Your task to perform on an android device: clear history in the chrome app Image 0: 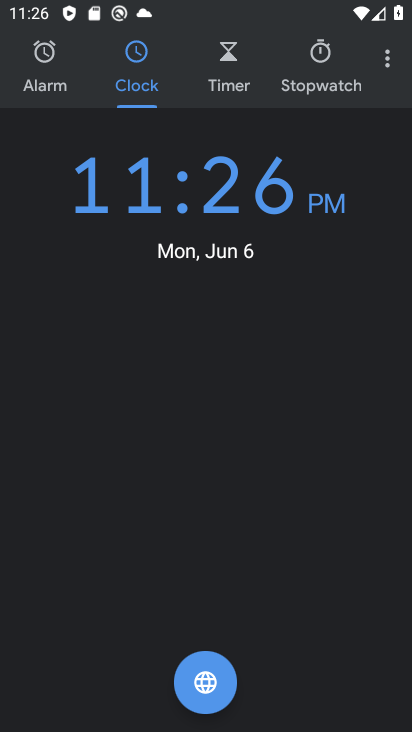
Step 0: press home button
Your task to perform on an android device: clear history in the chrome app Image 1: 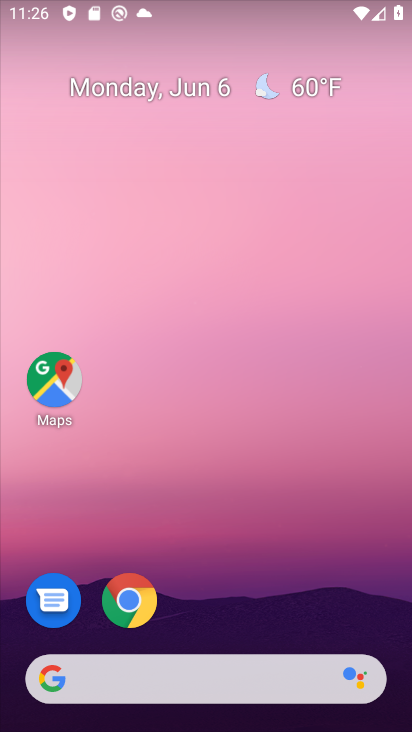
Step 1: click (134, 599)
Your task to perform on an android device: clear history in the chrome app Image 2: 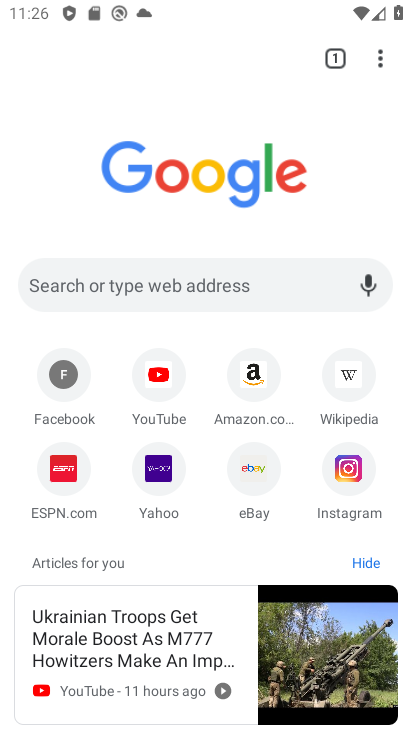
Step 2: click (379, 65)
Your task to perform on an android device: clear history in the chrome app Image 3: 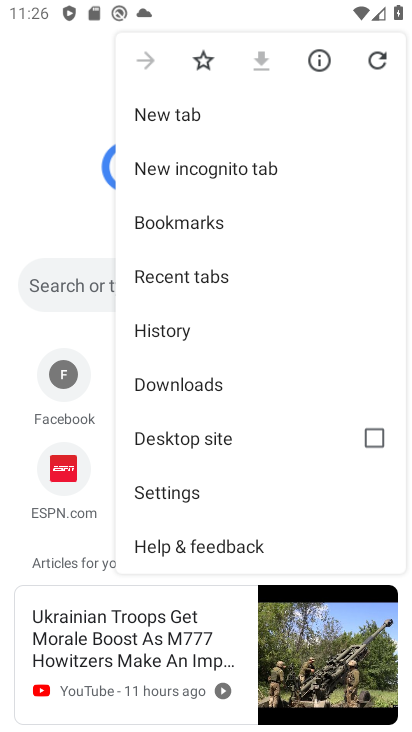
Step 3: click (177, 329)
Your task to perform on an android device: clear history in the chrome app Image 4: 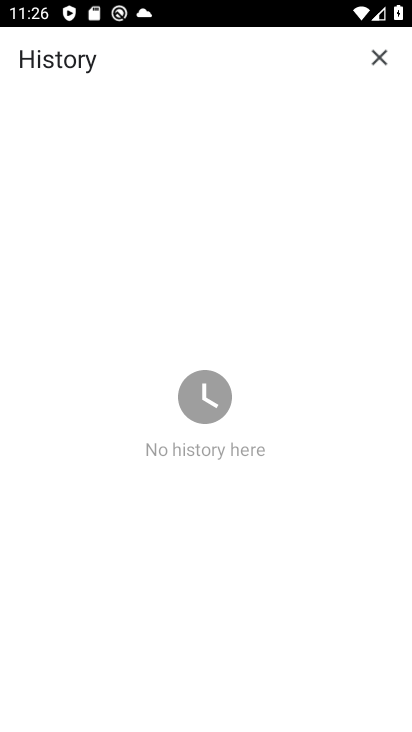
Step 4: task complete